Your task to perform on an android device: Go to internet settings Image 0: 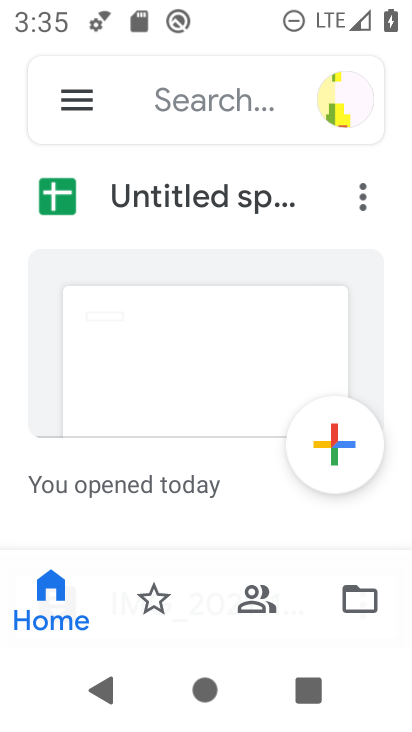
Step 0: press home button
Your task to perform on an android device: Go to internet settings Image 1: 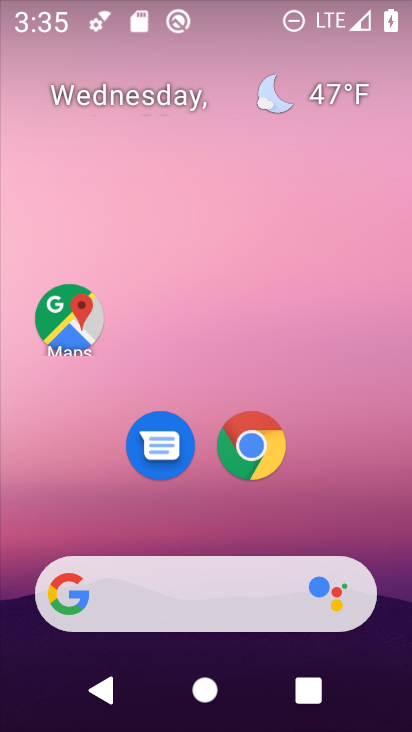
Step 1: drag from (359, 528) to (279, 25)
Your task to perform on an android device: Go to internet settings Image 2: 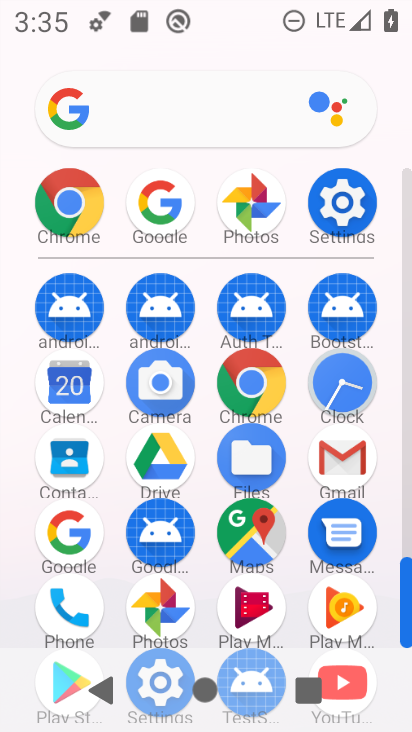
Step 2: click (337, 202)
Your task to perform on an android device: Go to internet settings Image 3: 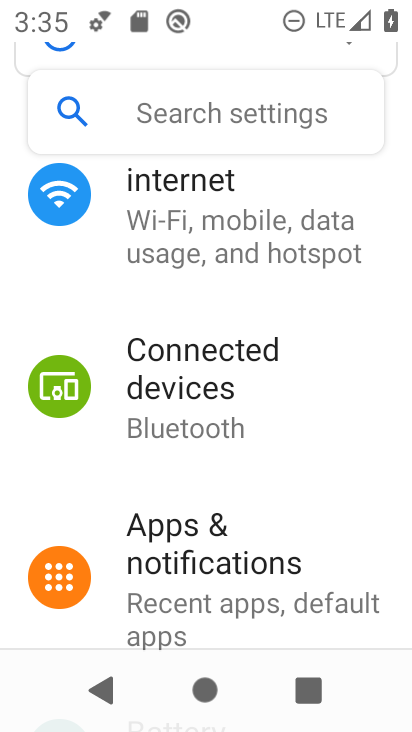
Step 3: drag from (258, 290) to (327, 410)
Your task to perform on an android device: Go to internet settings Image 4: 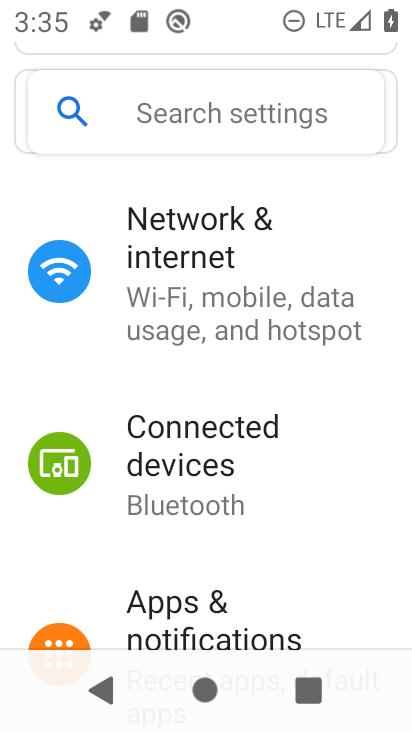
Step 4: click (187, 256)
Your task to perform on an android device: Go to internet settings Image 5: 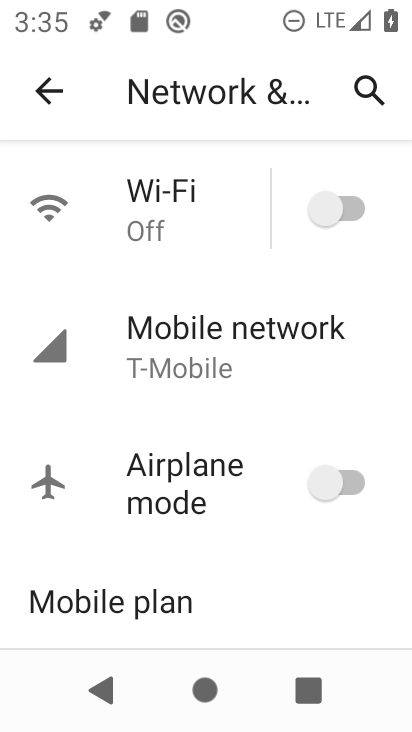
Step 5: task complete